Your task to perform on an android device: toggle location history Image 0: 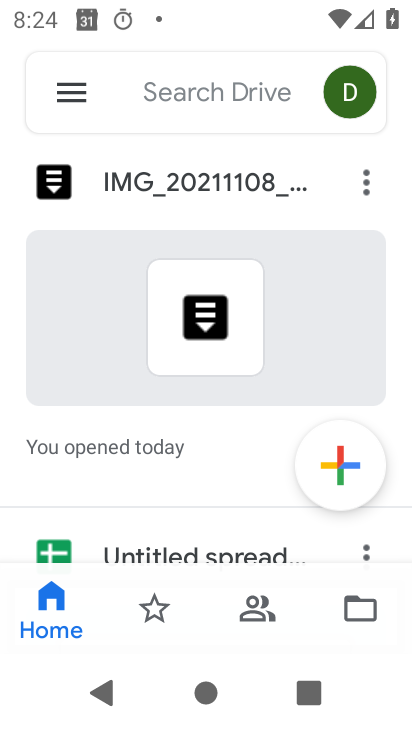
Step 0: press home button
Your task to perform on an android device: toggle location history Image 1: 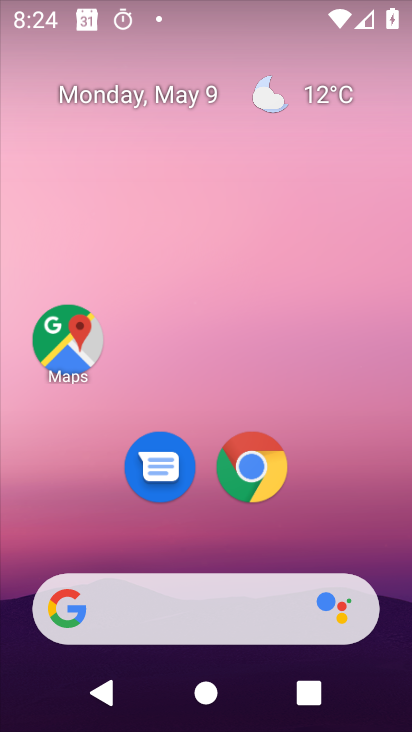
Step 1: click (158, 354)
Your task to perform on an android device: toggle location history Image 2: 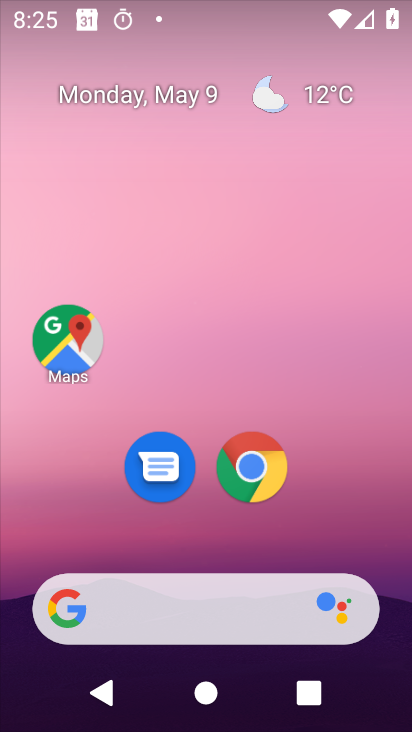
Step 2: click (65, 345)
Your task to perform on an android device: toggle location history Image 3: 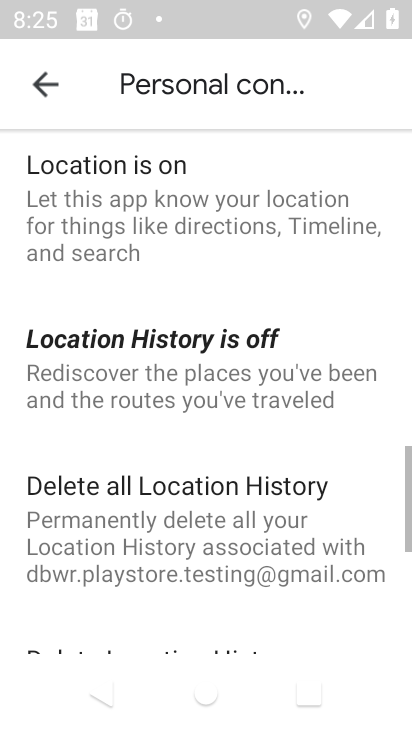
Step 3: click (65, 345)
Your task to perform on an android device: toggle location history Image 4: 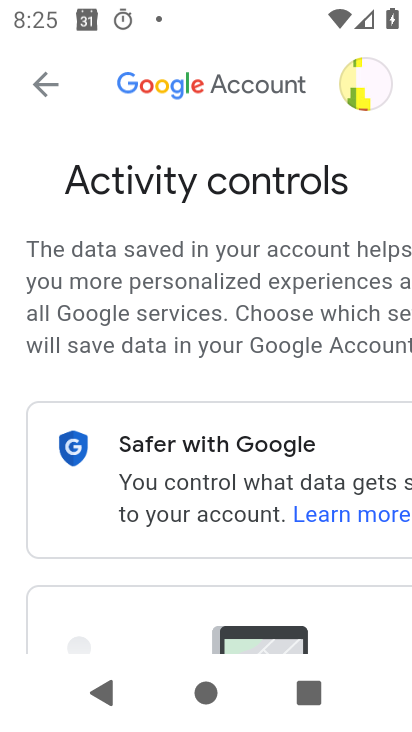
Step 4: drag from (312, 625) to (286, 152)
Your task to perform on an android device: toggle location history Image 5: 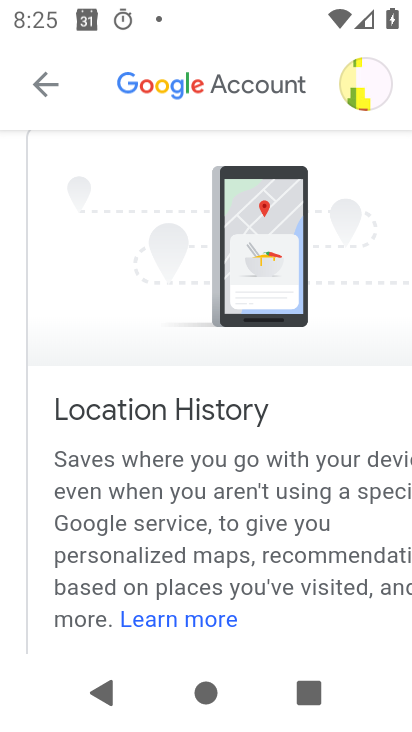
Step 5: drag from (266, 530) to (250, 83)
Your task to perform on an android device: toggle location history Image 6: 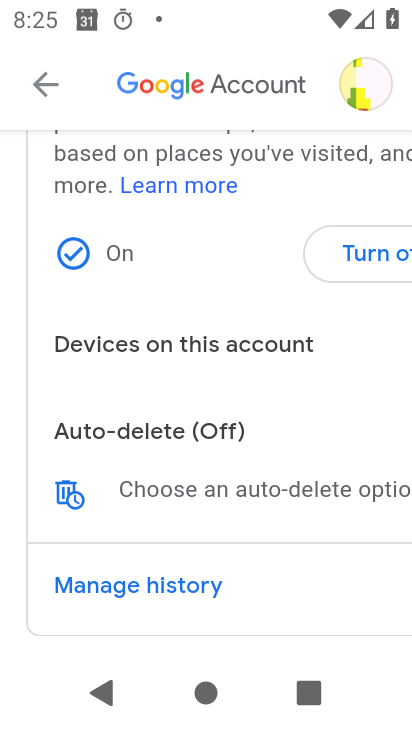
Step 6: click (359, 266)
Your task to perform on an android device: toggle location history Image 7: 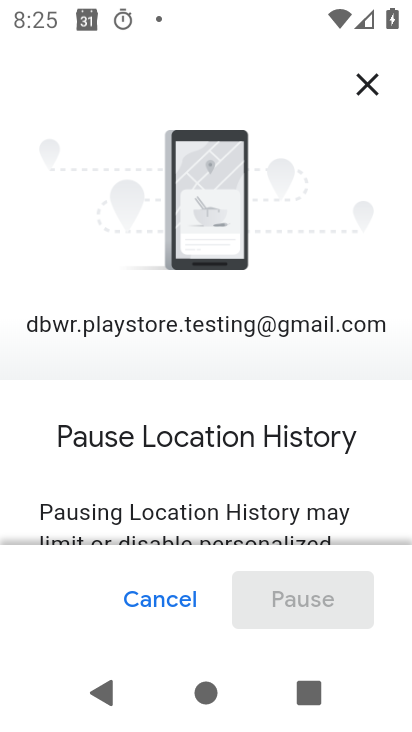
Step 7: drag from (277, 470) to (266, 202)
Your task to perform on an android device: toggle location history Image 8: 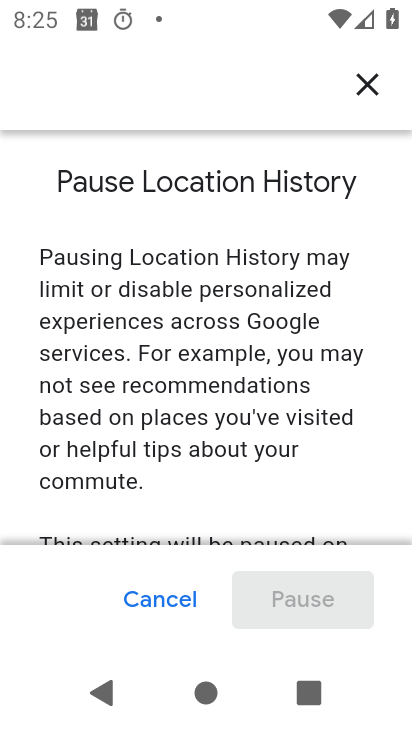
Step 8: drag from (263, 440) to (246, 108)
Your task to perform on an android device: toggle location history Image 9: 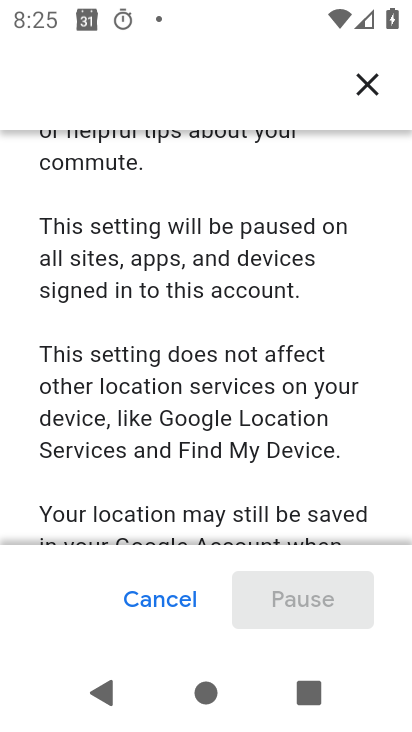
Step 9: drag from (258, 416) to (247, 105)
Your task to perform on an android device: toggle location history Image 10: 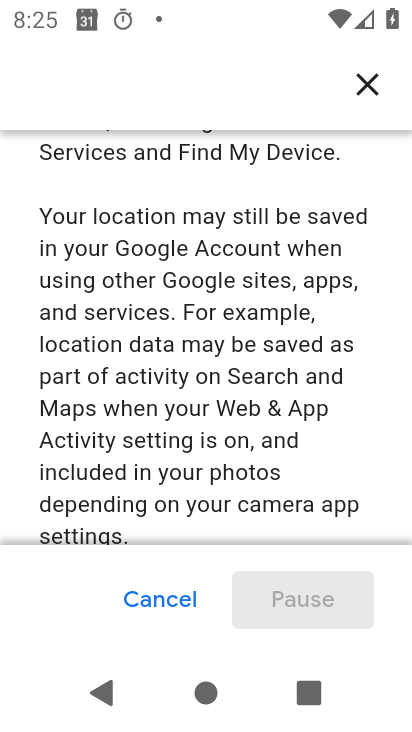
Step 10: drag from (237, 368) to (239, 122)
Your task to perform on an android device: toggle location history Image 11: 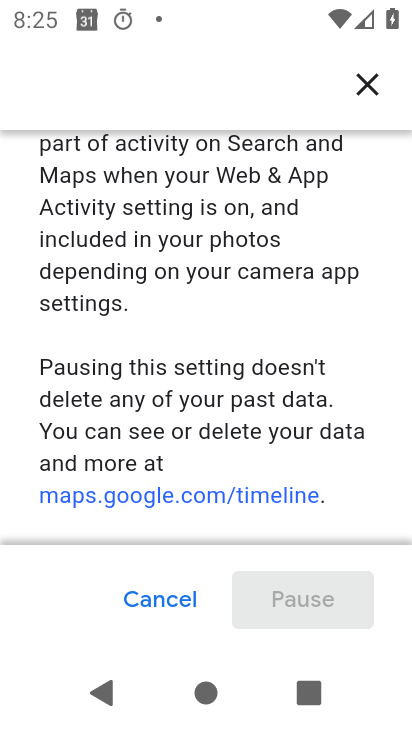
Step 11: drag from (204, 426) to (222, 76)
Your task to perform on an android device: toggle location history Image 12: 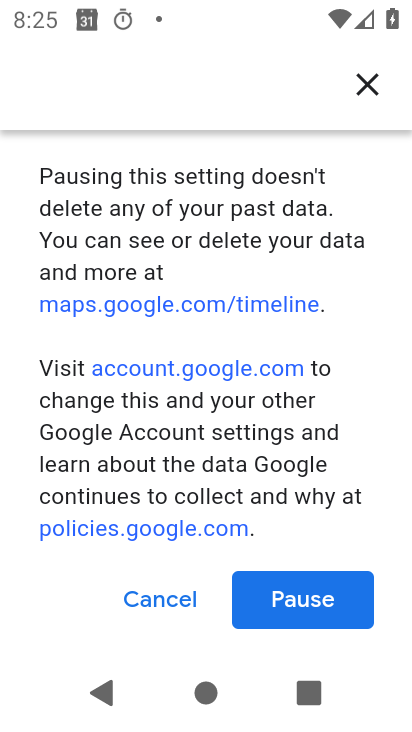
Step 12: click (289, 604)
Your task to perform on an android device: toggle location history Image 13: 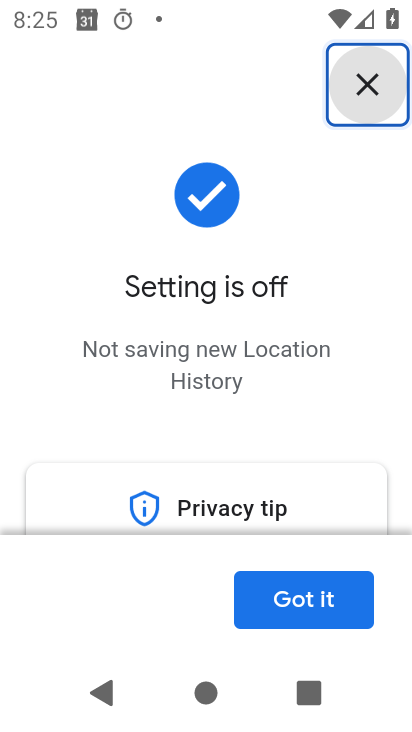
Step 13: click (289, 604)
Your task to perform on an android device: toggle location history Image 14: 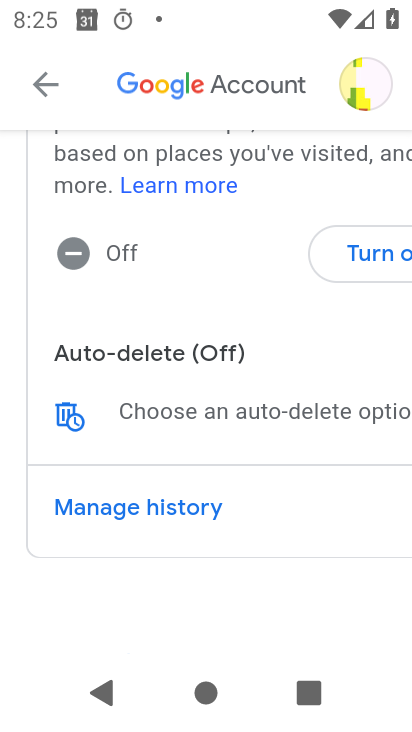
Step 14: task complete